Your task to perform on an android device: Go to privacy settings Image 0: 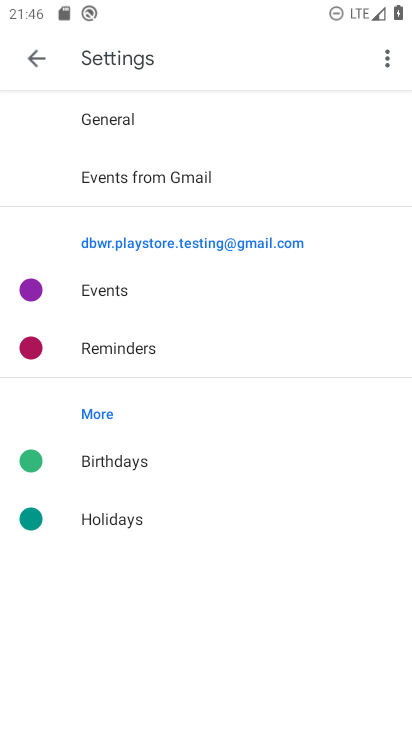
Step 0: press back button
Your task to perform on an android device: Go to privacy settings Image 1: 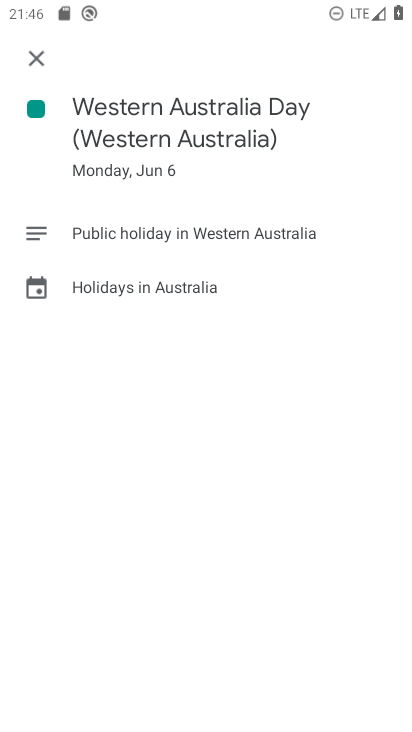
Step 1: press back button
Your task to perform on an android device: Go to privacy settings Image 2: 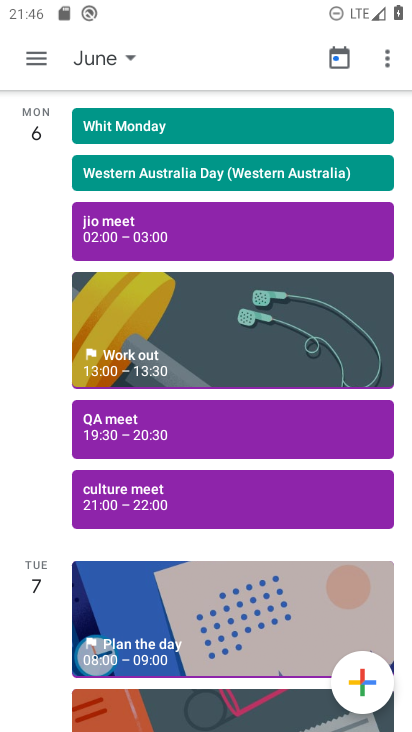
Step 2: press back button
Your task to perform on an android device: Go to privacy settings Image 3: 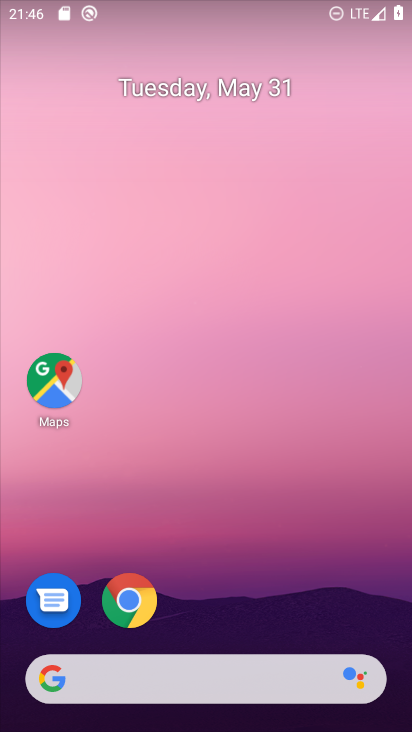
Step 3: drag from (234, 537) to (286, 110)
Your task to perform on an android device: Go to privacy settings Image 4: 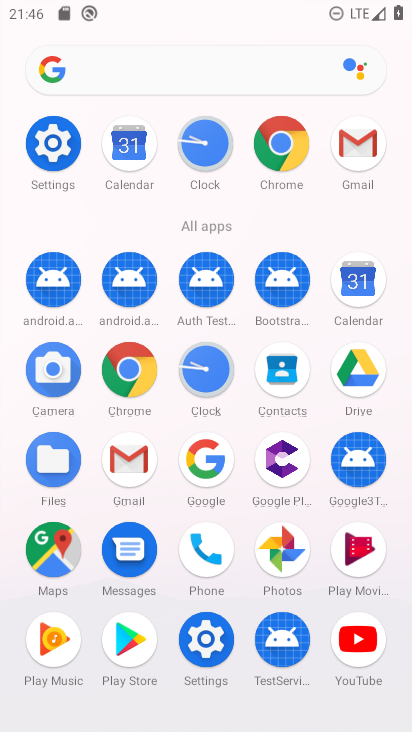
Step 4: click (55, 141)
Your task to perform on an android device: Go to privacy settings Image 5: 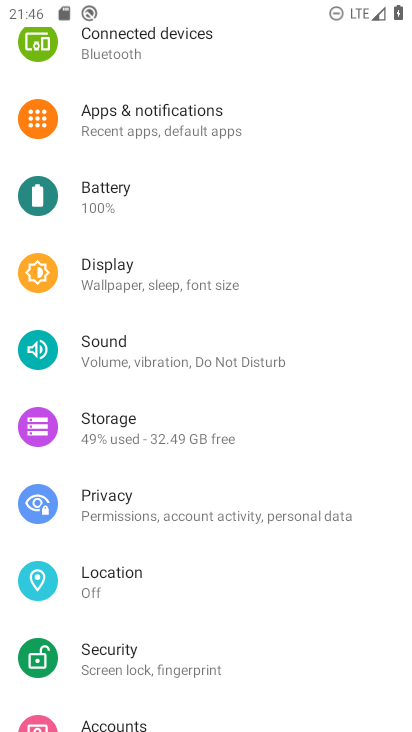
Step 5: click (120, 488)
Your task to perform on an android device: Go to privacy settings Image 6: 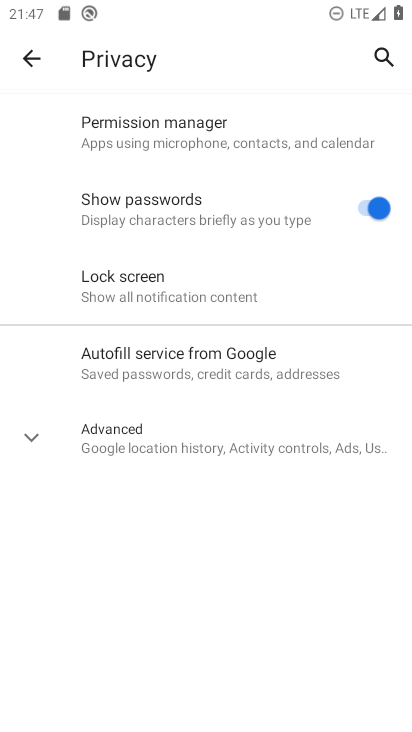
Step 6: task complete